Your task to perform on an android device: open app "Speedtest by Ookla" (install if not already installed) Image 0: 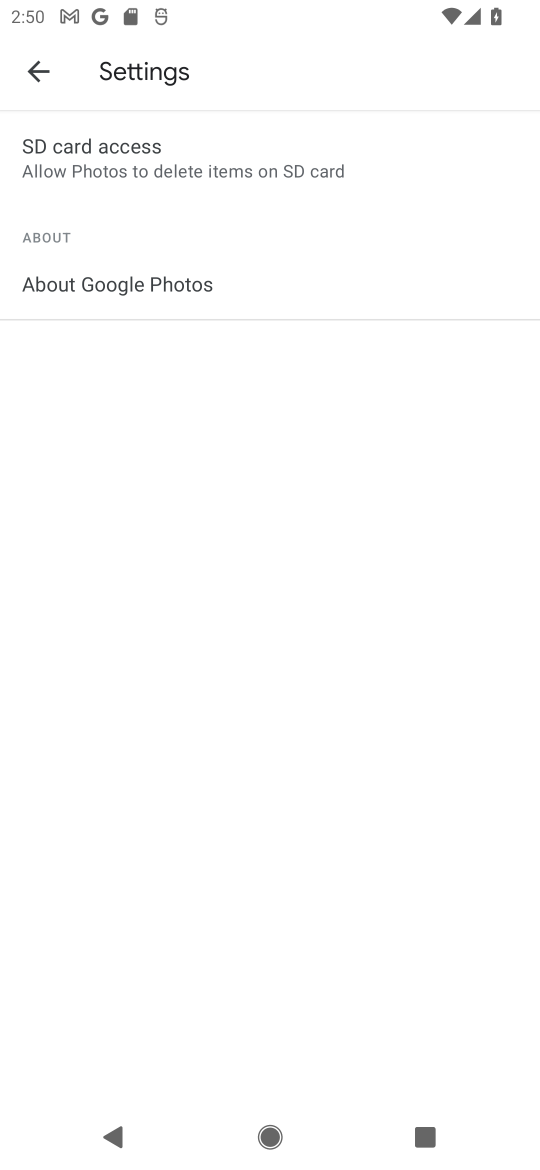
Step 0: press home button
Your task to perform on an android device: open app "Speedtest by Ookla" (install if not already installed) Image 1: 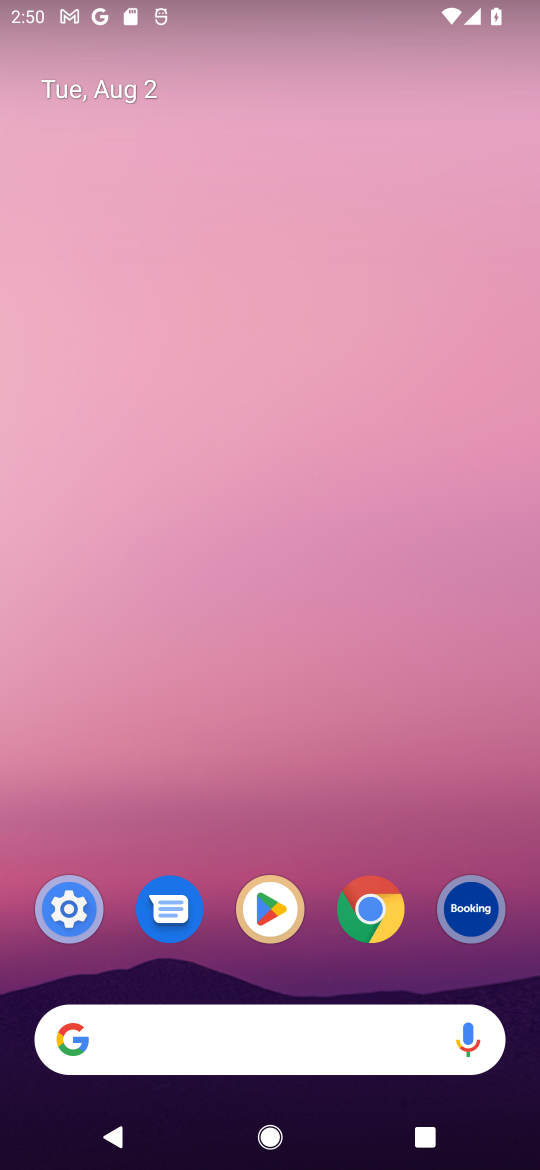
Step 1: drag from (214, 758) to (370, 177)
Your task to perform on an android device: open app "Speedtest by Ookla" (install if not already installed) Image 2: 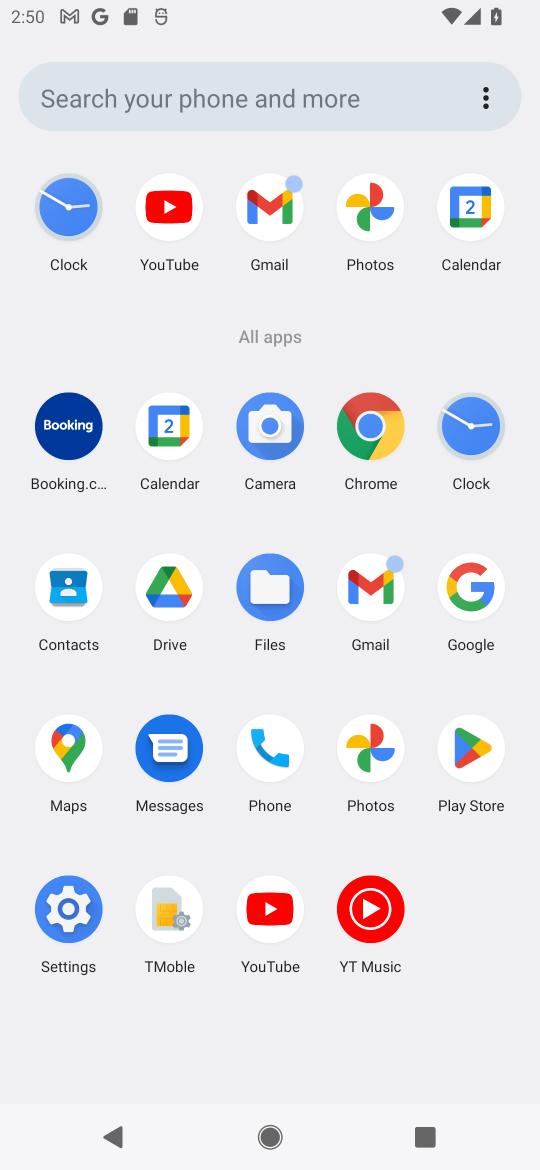
Step 2: click (466, 720)
Your task to perform on an android device: open app "Speedtest by Ookla" (install if not already installed) Image 3: 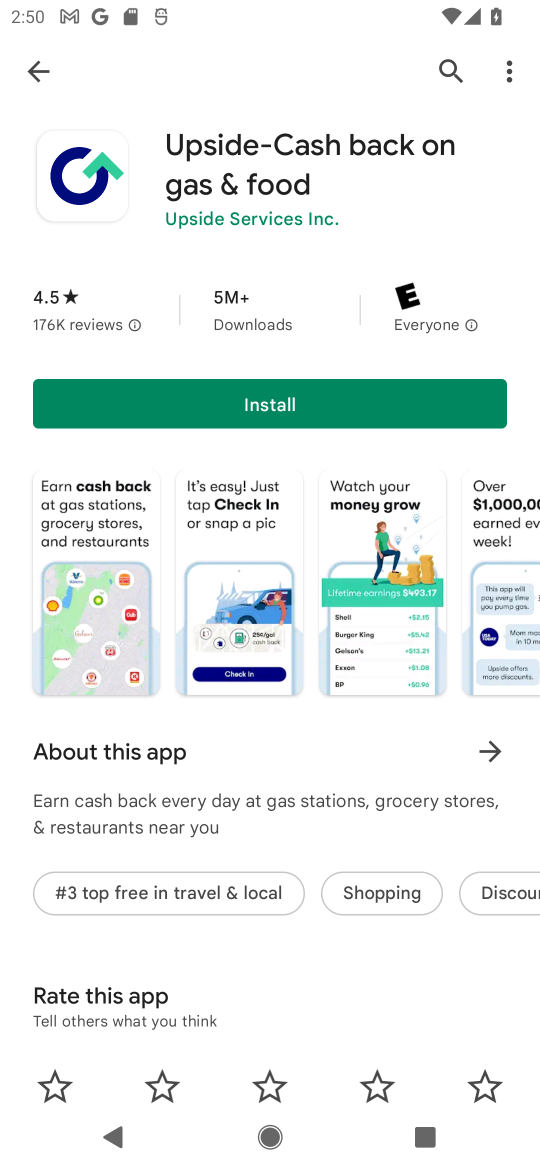
Step 3: click (458, 71)
Your task to perform on an android device: open app "Speedtest by Ookla" (install if not already installed) Image 4: 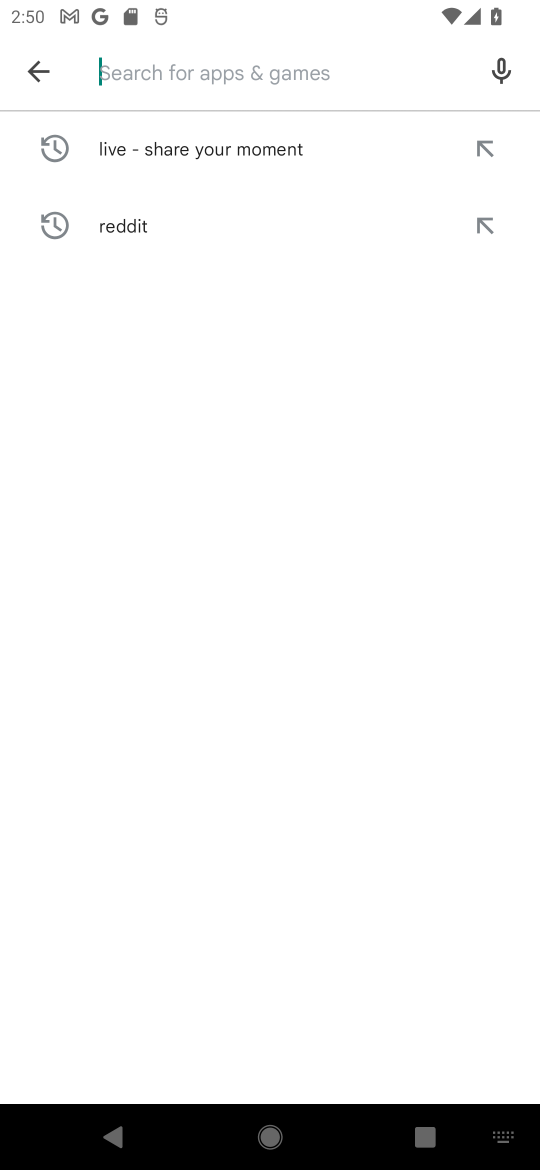
Step 4: type "Speedtest by Ookla"
Your task to perform on an android device: open app "Speedtest by Ookla" (install if not already installed) Image 5: 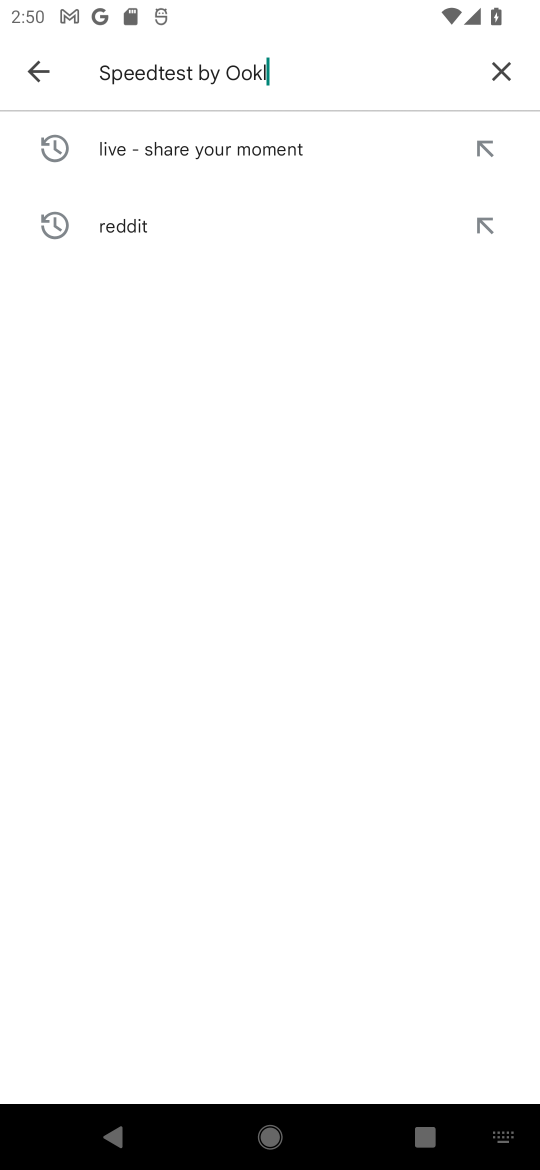
Step 5: type ""
Your task to perform on an android device: open app "Speedtest by Ookla" (install if not already installed) Image 6: 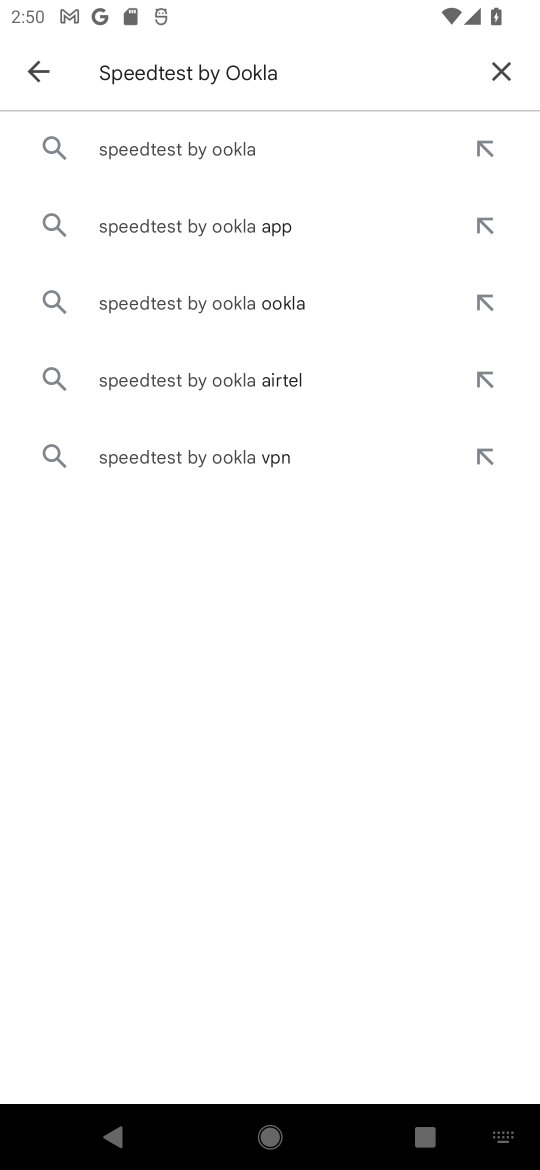
Step 6: click (270, 151)
Your task to perform on an android device: open app "Speedtest by Ookla" (install if not already installed) Image 7: 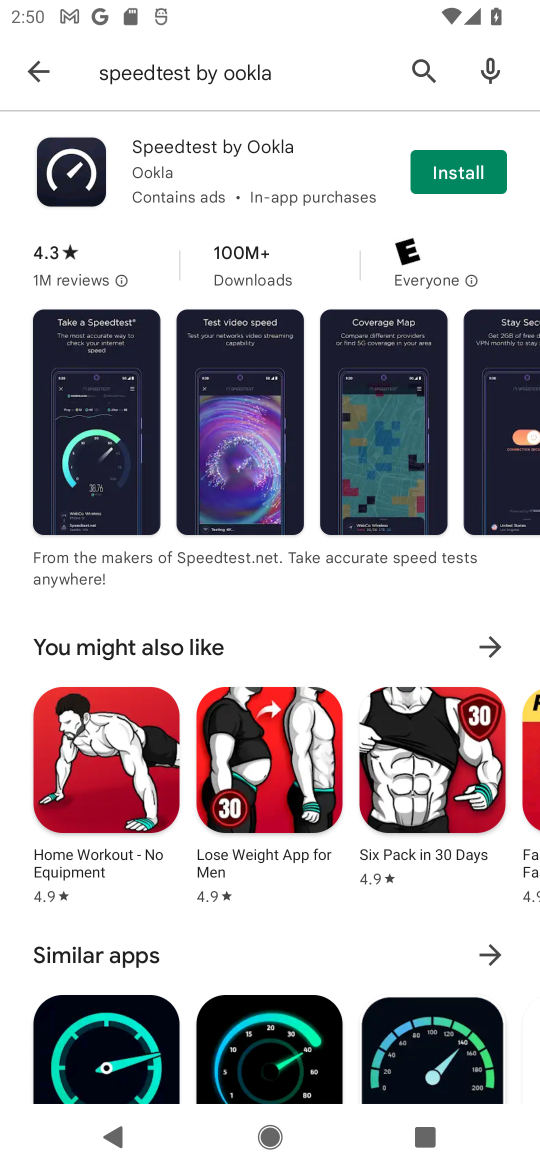
Step 7: click (451, 170)
Your task to perform on an android device: open app "Speedtest by Ookla" (install if not already installed) Image 8: 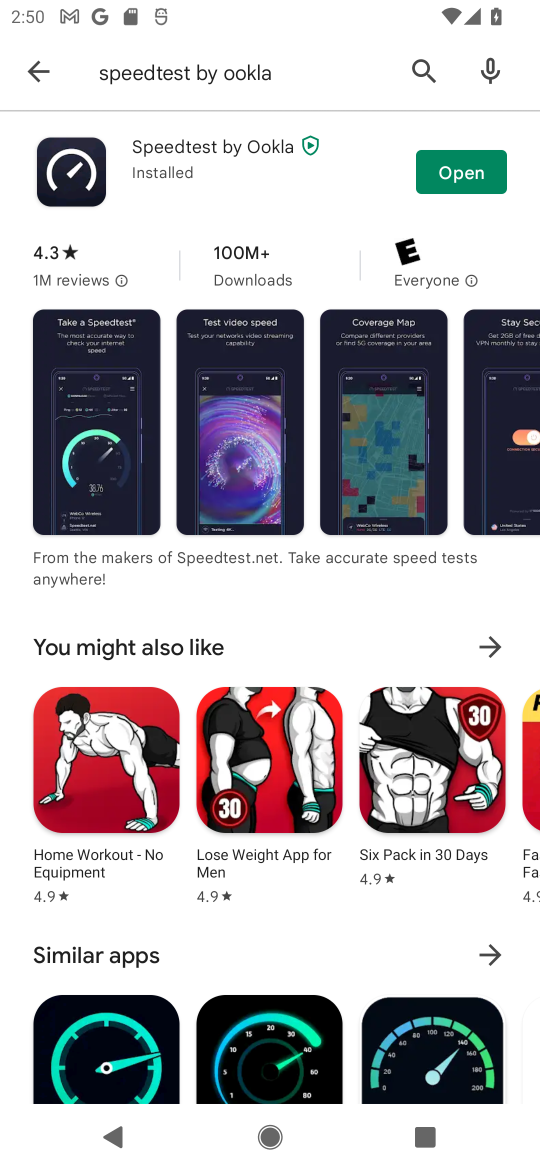
Step 8: click (483, 172)
Your task to perform on an android device: open app "Speedtest by Ookla" (install if not already installed) Image 9: 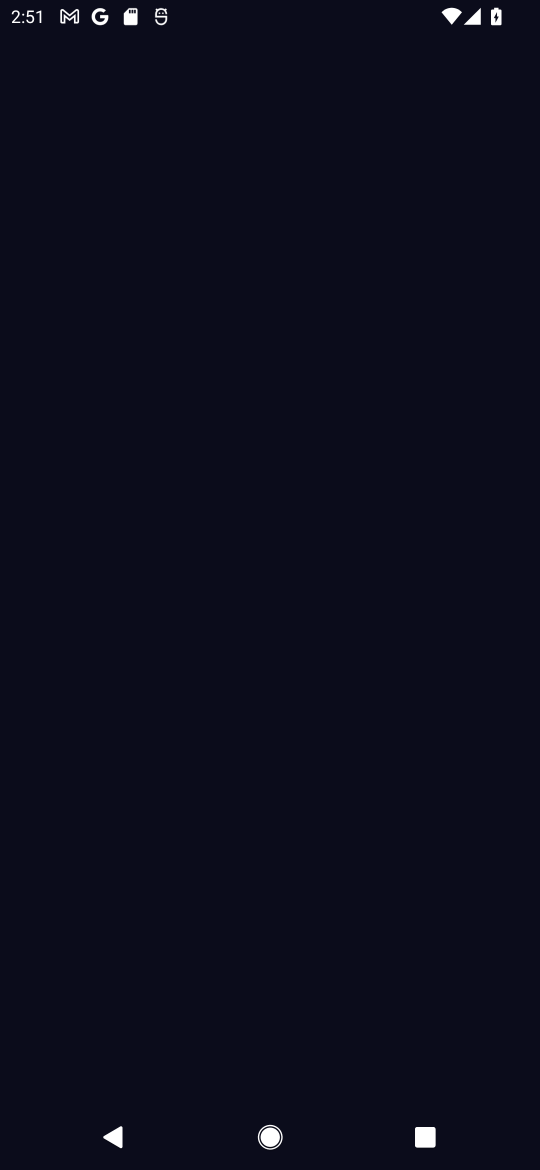
Step 9: task complete